Your task to perform on an android device: What's the news this week? Image 0: 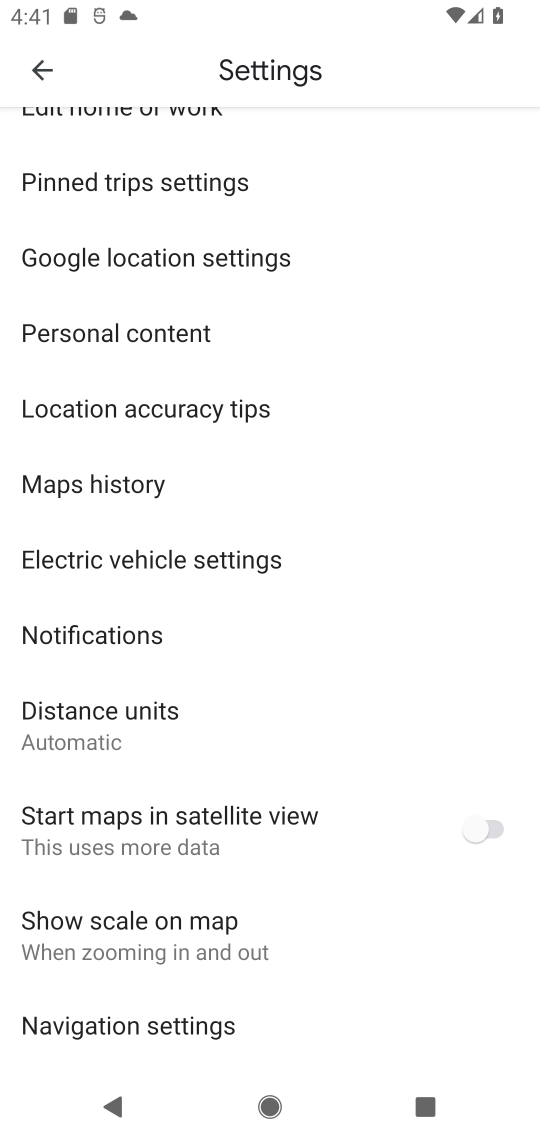
Step 0: press home button
Your task to perform on an android device: What's the news this week? Image 1: 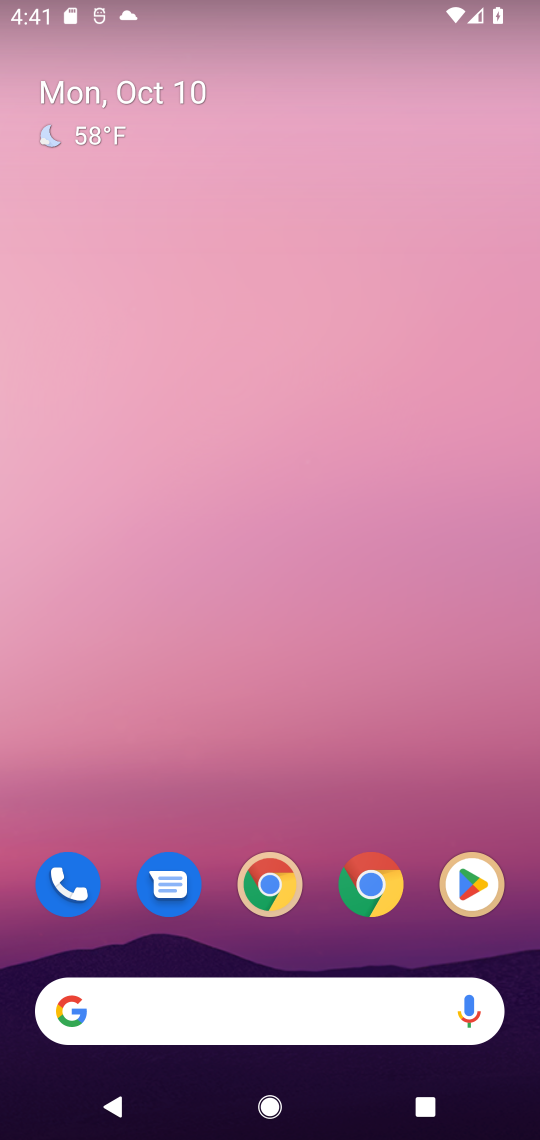
Step 1: click (370, 901)
Your task to perform on an android device: What's the news this week? Image 2: 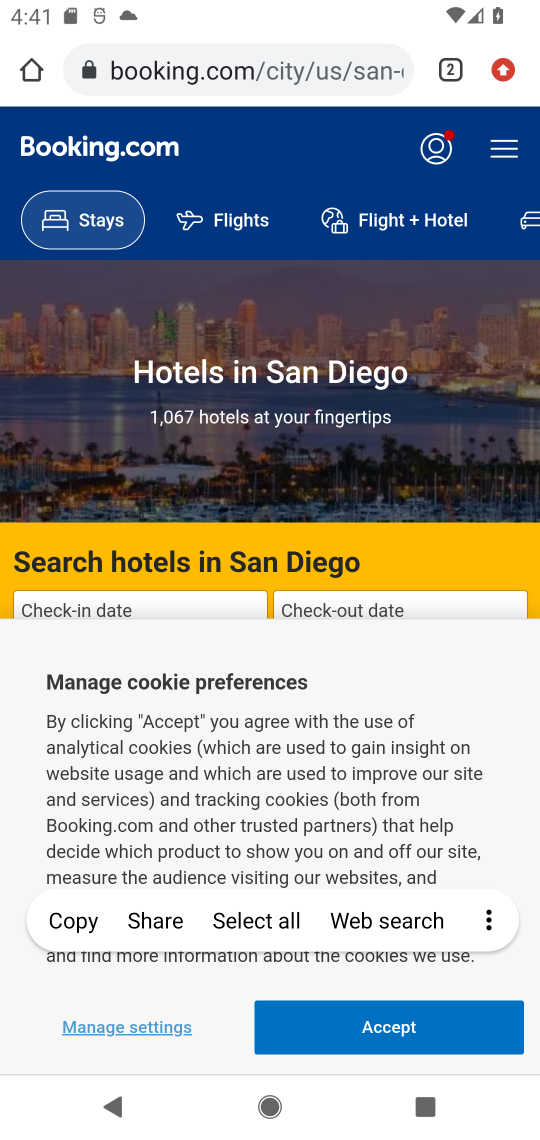
Step 2: click (226, 68)
Your task to perform on an android device: What's the news this week? Image 3: 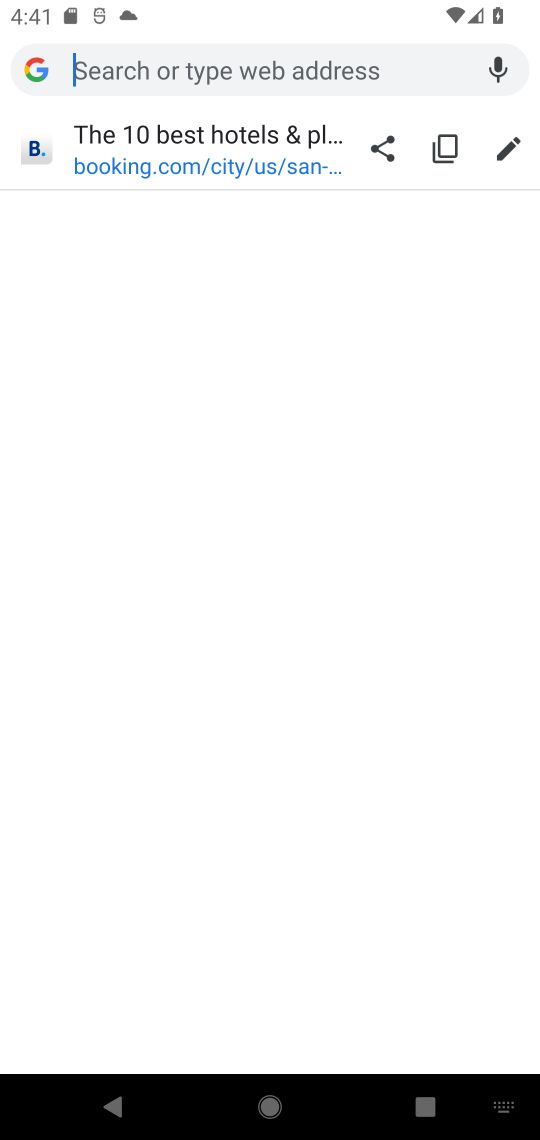
Step 3: type "What's the news this week?"
Your task to perform on an android device: What's the news this week? Image 4: 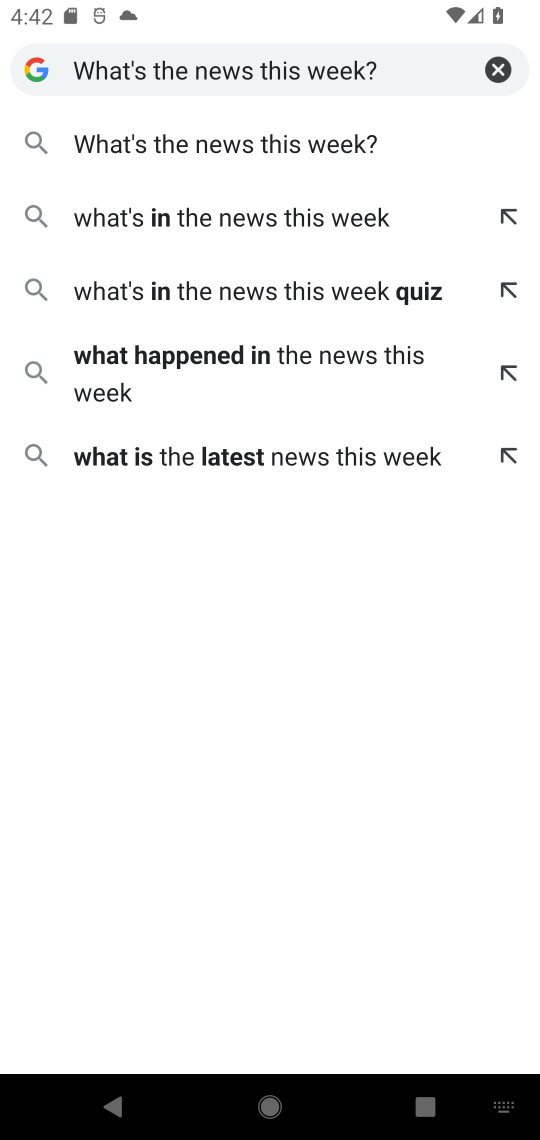
Step 4: click (265, 150)
Your task to perform on an android device: What's the news this week? Image 5: 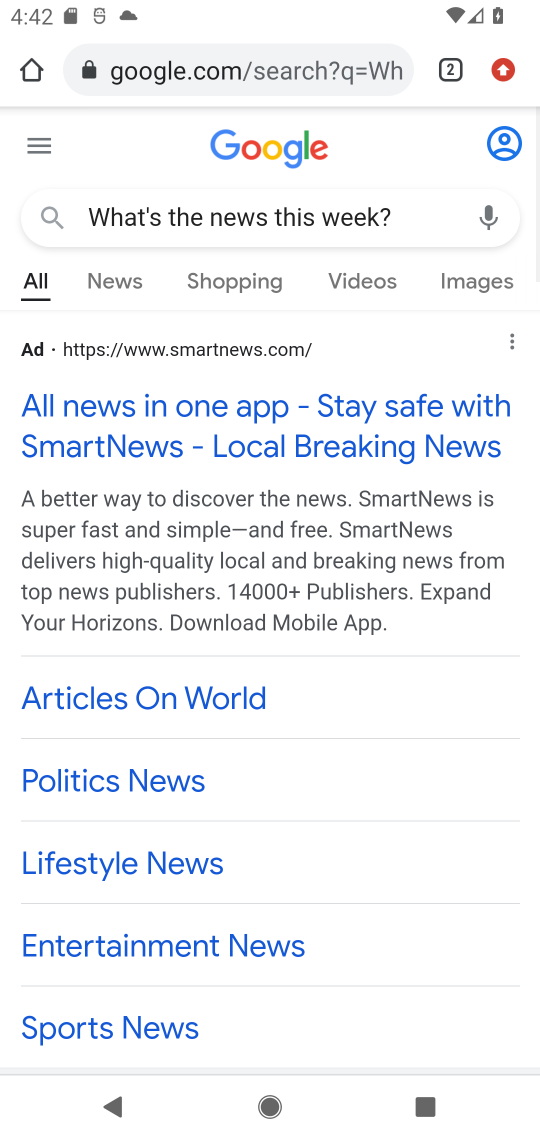
Step 5: click (187, 444)
Your task to perform on an android device: What's the news this week? Image 6: 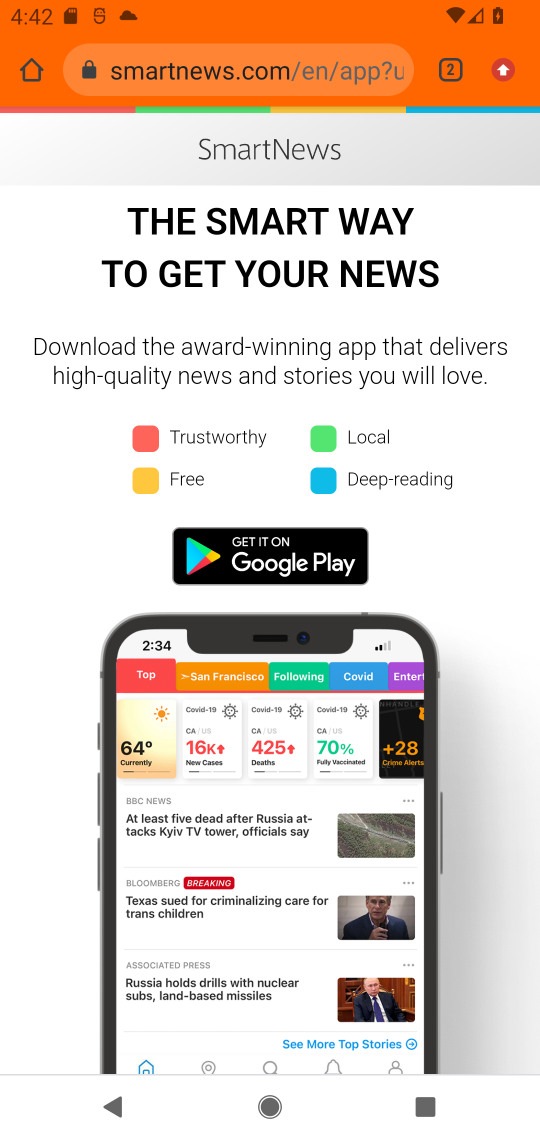
Step 6: press back button
Your task to perform on an android device: What's the news this week? Image 7: 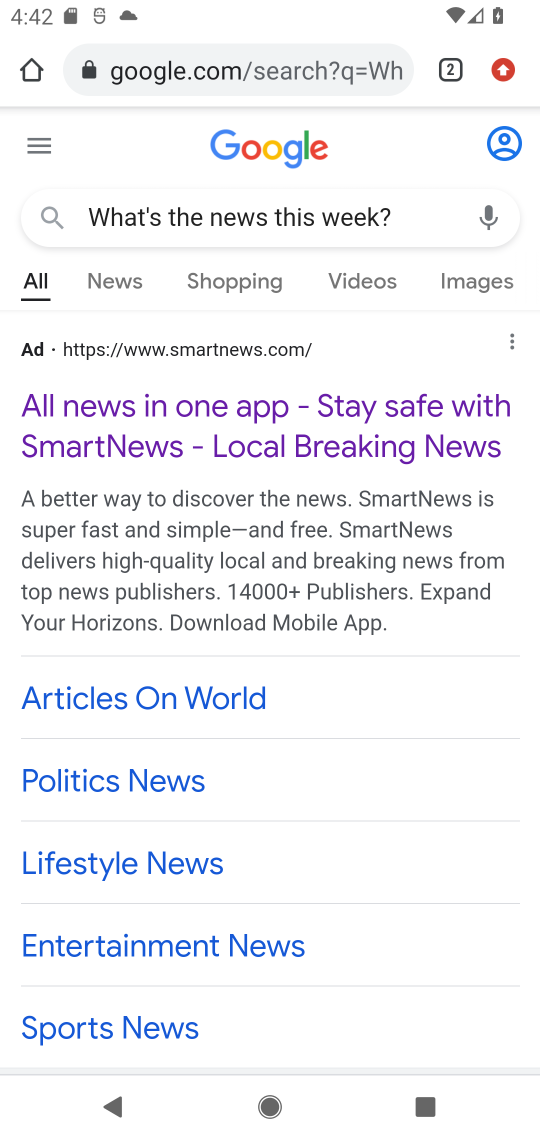
Step 7: drag from (414, 907) to (388, 520)
Your task to perform on an android device: What's the news this week? Image 8: 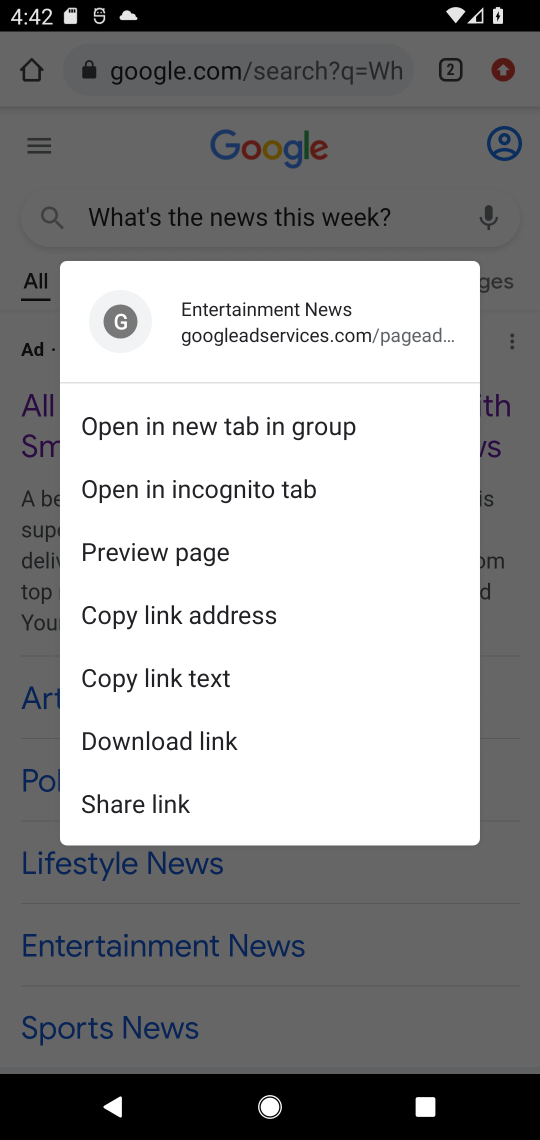
Step 8: click (509, 795)
Your task to perform on an android device: What's the news this week? Image 9: 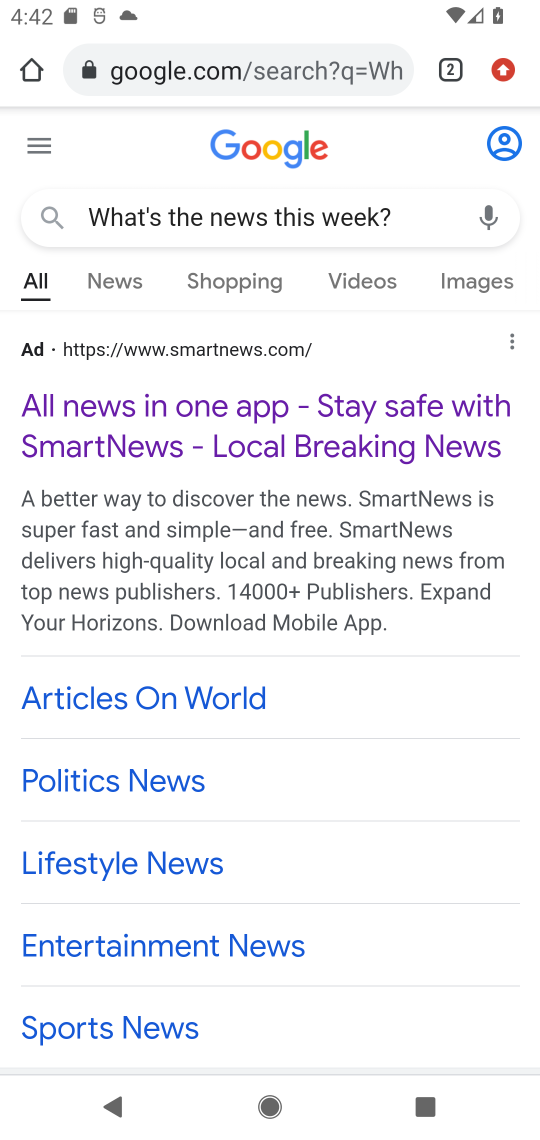
Step 9: drag from (356, 963) to (385, 286)
Your task to perform on an android device: What's the news this week? Image 10: 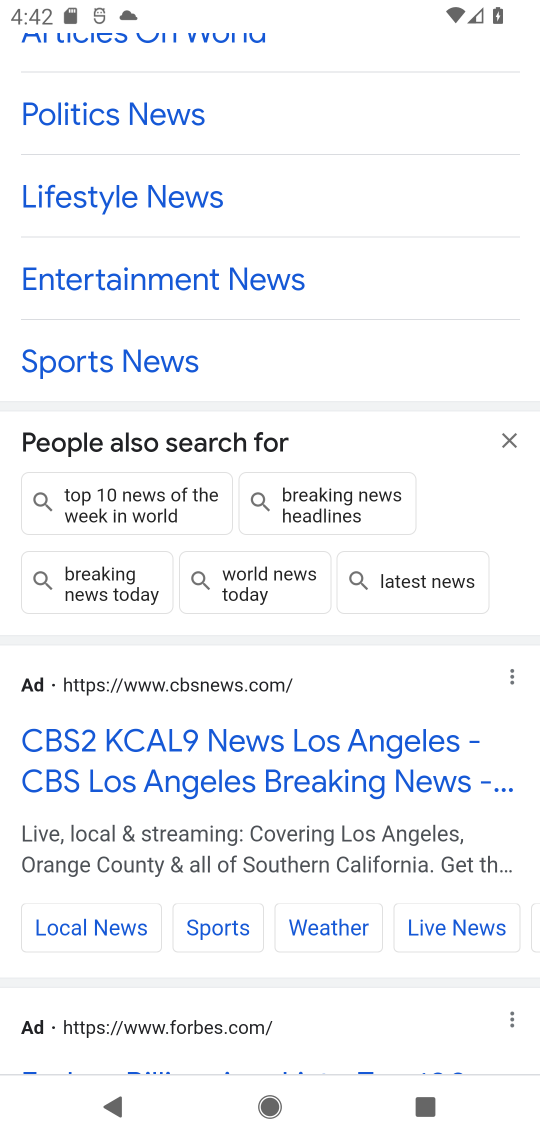
Step 10: click (216, 756)
Your task to perform on an android device: What's the news this week? Image 11: 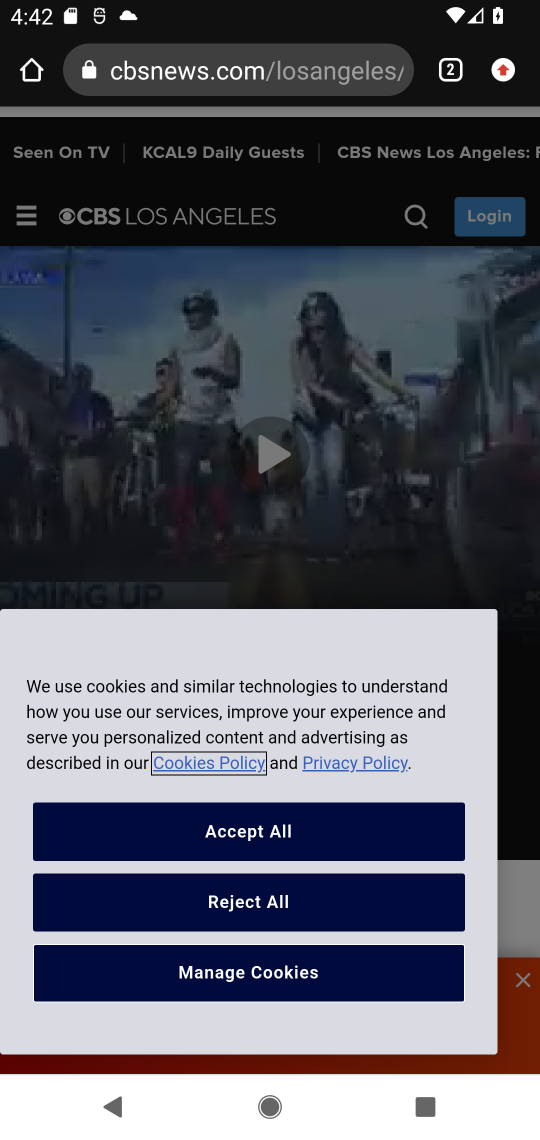
Step 11: task complete